Your task to perform on an android device: delete a single message in the gmail app Image 0: 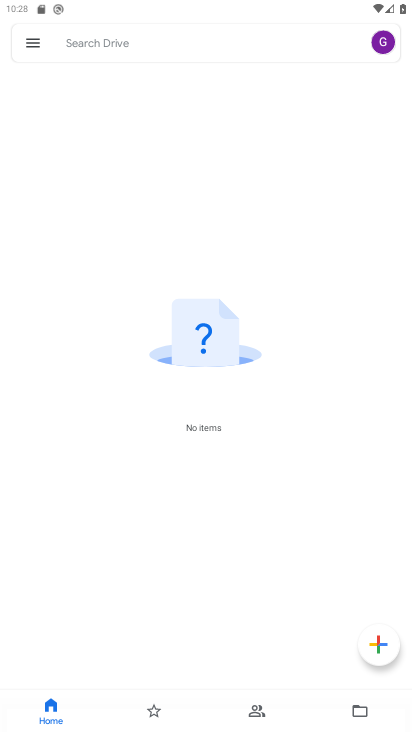
Step 0: press home button
Your task to perform on an android device: delete a single message in the gmail app Image 1: 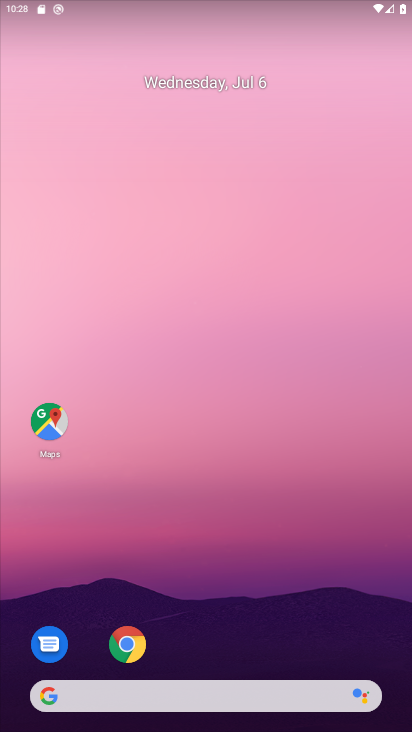
Step 1: drag from (270, 648) to (179, 0)
Your task to perform on an android device: delete a single message in the gmail app Image 2: 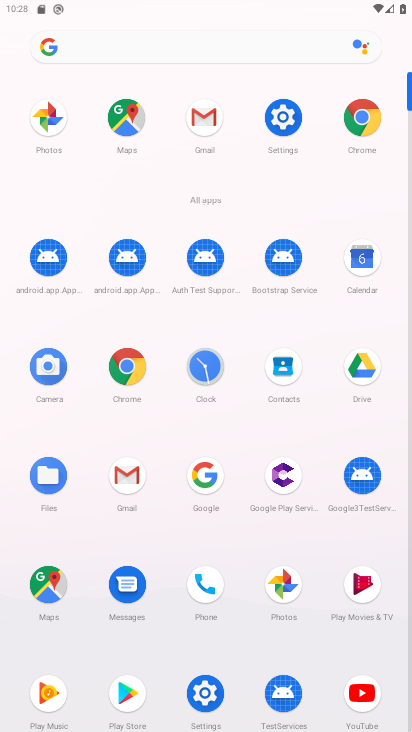
Step 2: click (211, 120)
Your task to perform on an android device: delete a single message in the gmail app Image 3: 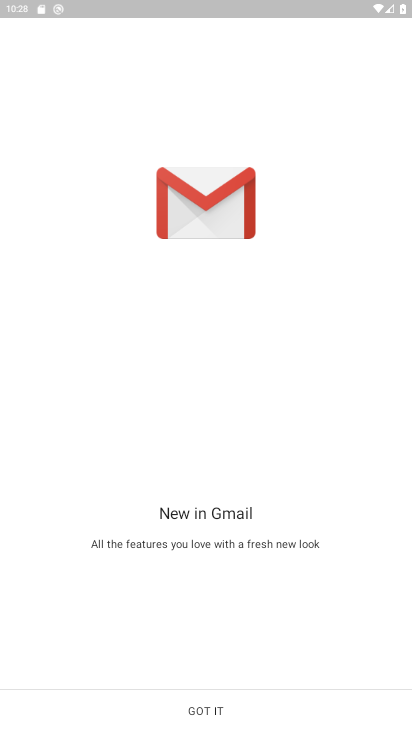
Step 3: click (230, 711)
Your task to perform on an android device: delete a single message in the gmail app Image 4: 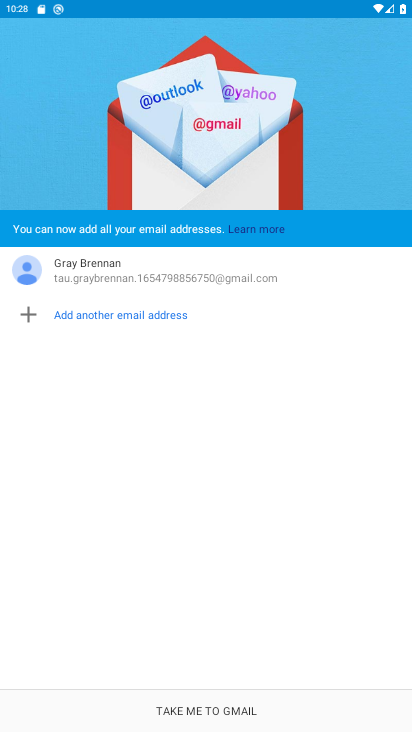
Step 4: click (230, 711)
Your task to perform on an android device: delete a single message in the gmail app Image 5: 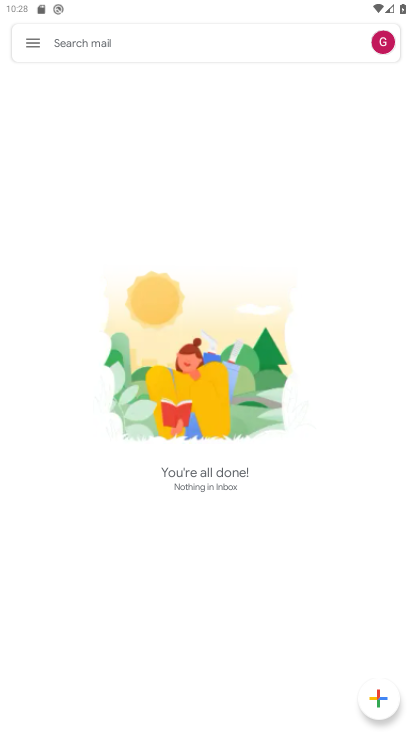
Step 5: task complete